Your task to perform on an android device: find which apps use the phone's location Image 0: 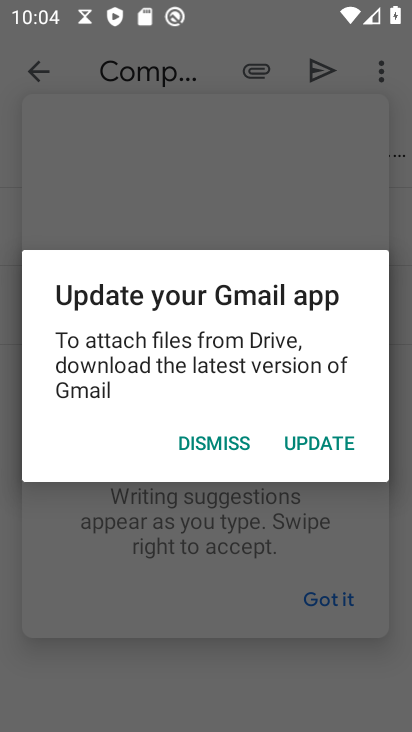
Step 0: press home button
Your task to perform on an android device: find which apps use the phone's location Image 1: 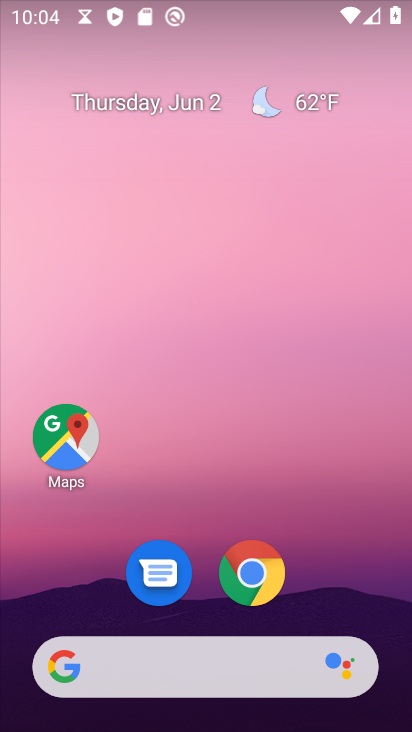
Step 1: drag from (330, 515) to (302, 32)
Your task to perform on an android device: find which apps use the phone's location Image 2: 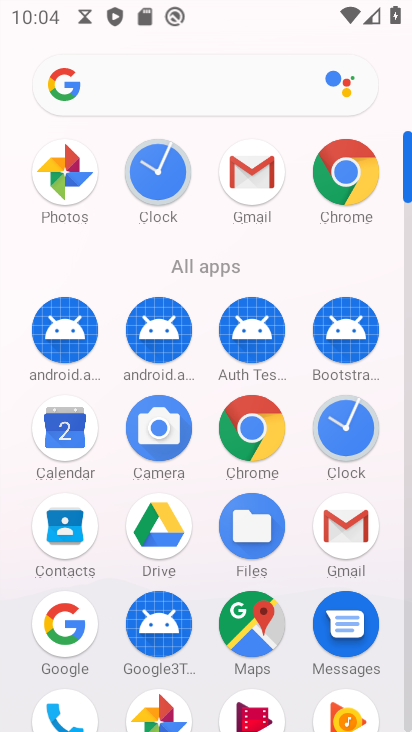
Step 2: drag from (307, 283) to (282, 71)
Your task to perform on an android device: find which apps use the phone's location Image 3: 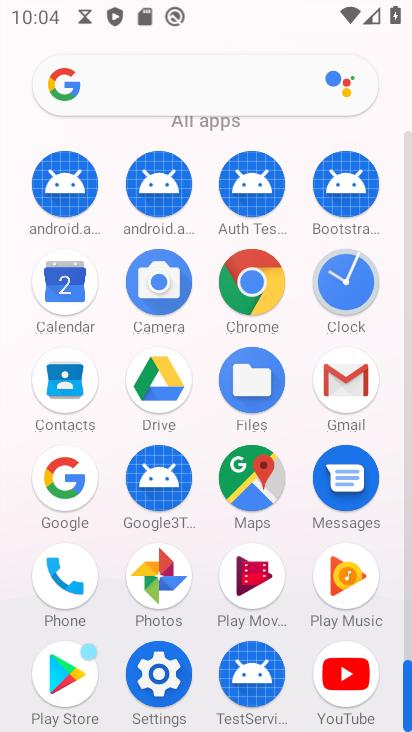
Step 3: click (157, 672)
Your task to perform on an android device: find which apps use the phone's location Image 4: 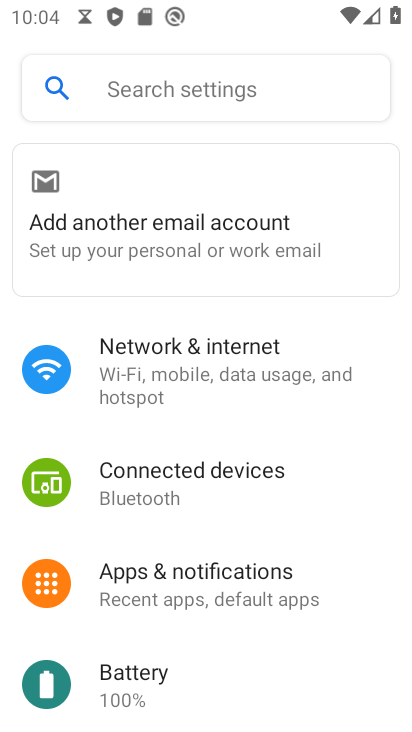
Step 4: drag from (190, 436) to (227, 277)
Your task to perform on an android device: find which apps use the phone's location Image 5: 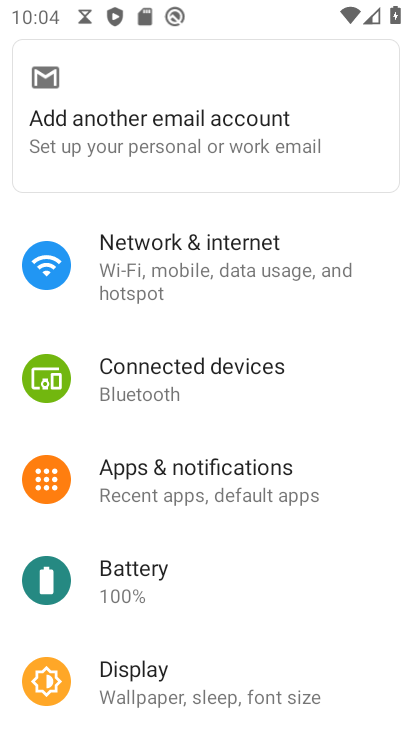
Step 5: drag from (176, 534) to (244, 385)
Your task to perform on an android device: find which apps use the phone's location Image 6: 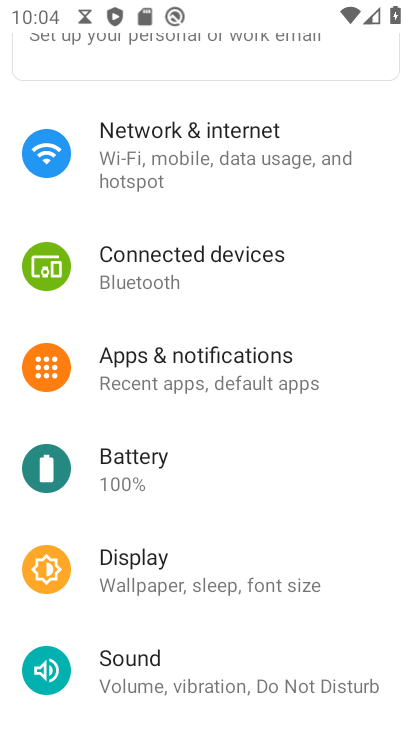
Step 6: drag from (159, 524) to (240, 378)
Your task to perform on an android device: find which apps use the phone's location Image 7: 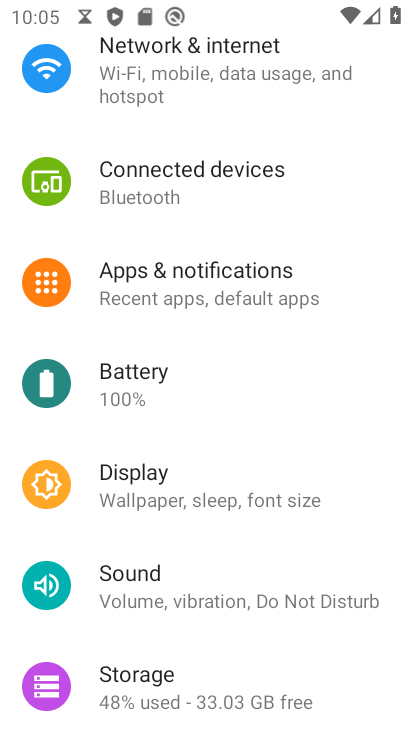
Step 7: drag from (141, 529) to (156, 397)
Your task to perform on an android device: find which apps use the phone's location Image 8: 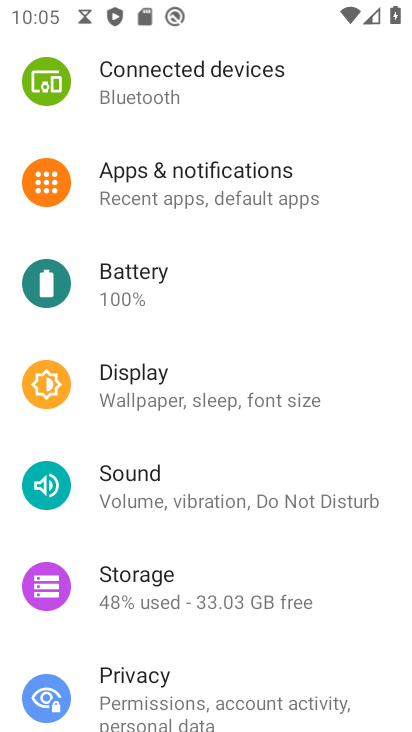
Step 8: drag from (131, 543) to (193, 396)
Your task to perform on an android device: find which apps use the phone's location Image 9: 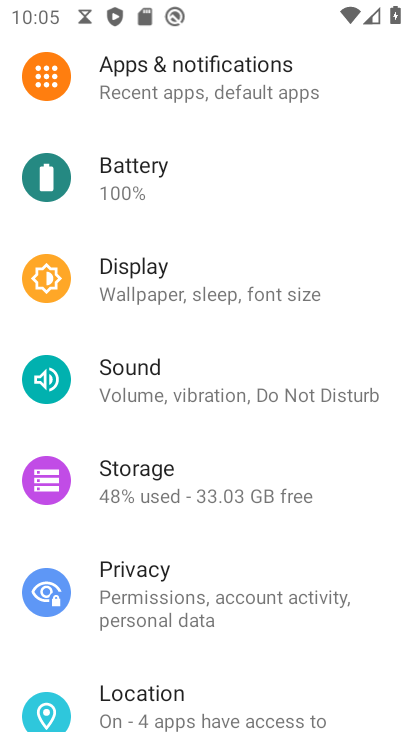
Step 9: drag from (134, 526) to (227, 371)
Your task to perform on an android device: find which apps use the phone's location Image 10: 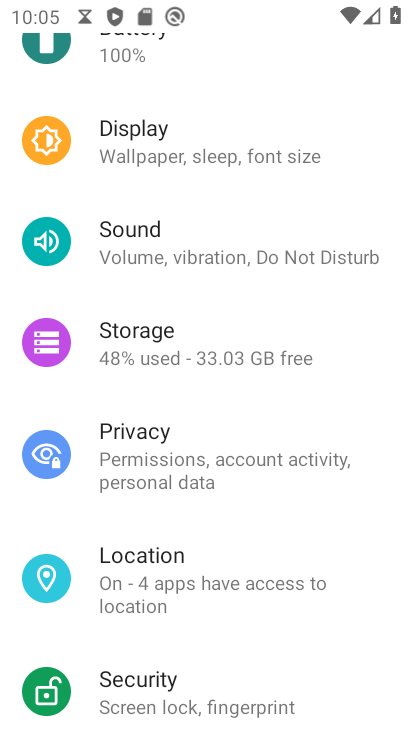
Step 10: click (135, 559)
Your task to perform on an android device: find which apps use the phone's location Image 11: 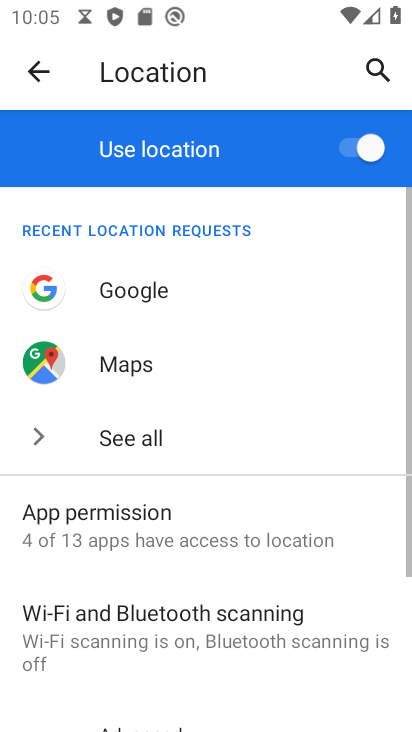
Step 11: drag from (103, 572) to (186, 407)
Your task to perform on an android device: find which apps use the phone's location Image 12: 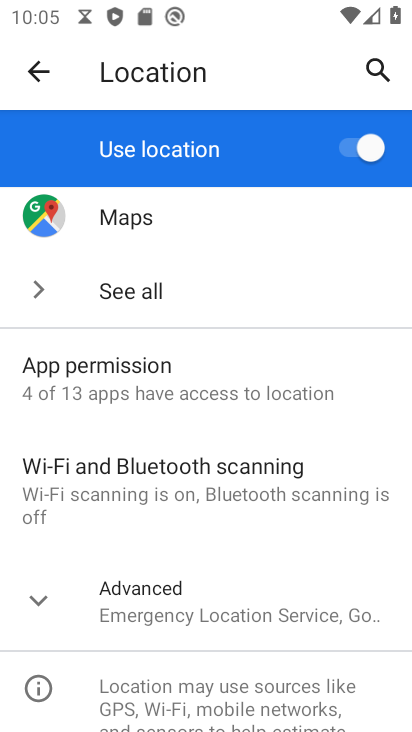
Step 12: click (172, 584)
Your task to perform on an android device: find which apps use the phone's location Image 13: 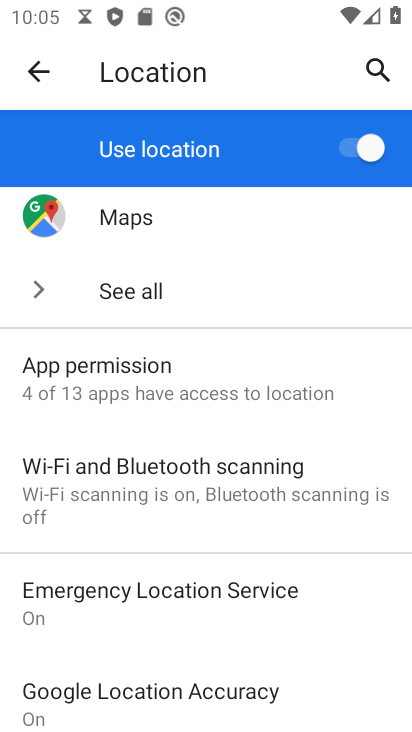
Step 13: drag from (155, 622) to (203, 510)
Your task to perform on an android device: find which apps use the phone's location Image 14: 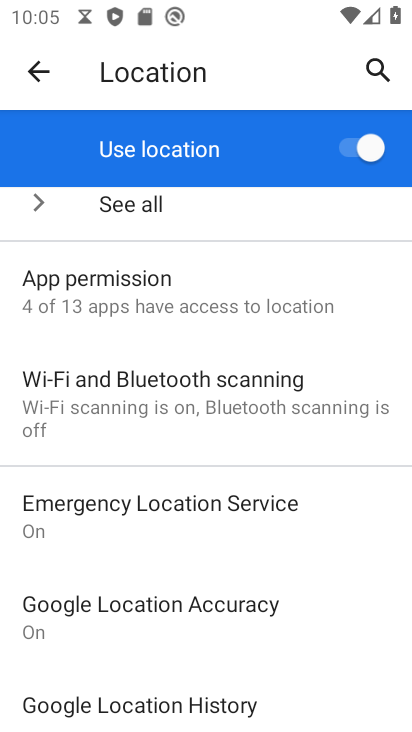
Step 14: click (182, 301)
Your task to perform on an android device: find which apps use the phone's location Image 15: 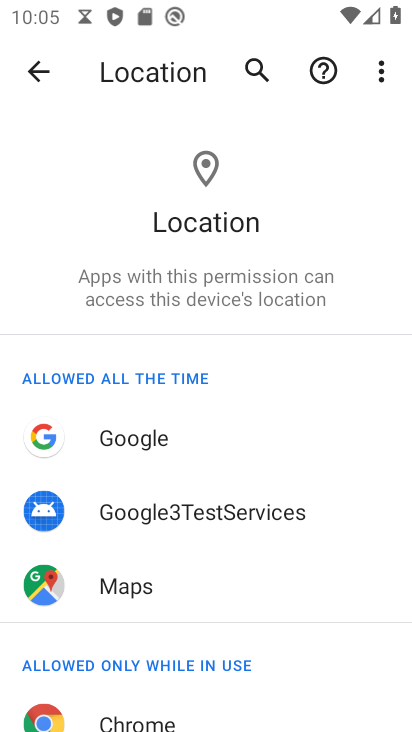
Step 15: click (113, 584)
Your task to perform on an android device: find which apps use the phone's location Image 16: 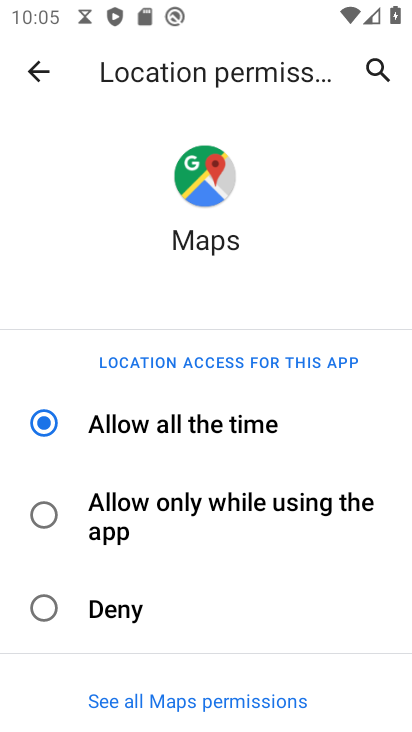
Step 16: task complete